Your task to perform on an android device: Open Chrome and go to the settings page Image 0: 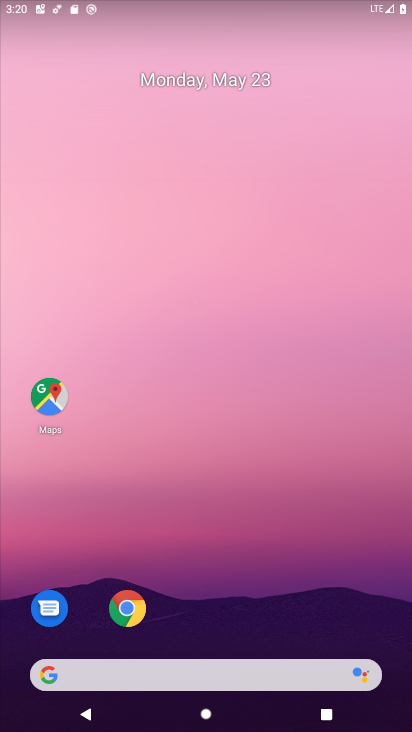
Step 0: drag from (254, 632) to (248, 257)
Your task to perform on an android device: Open Chrome and go to the settings page Image 1: 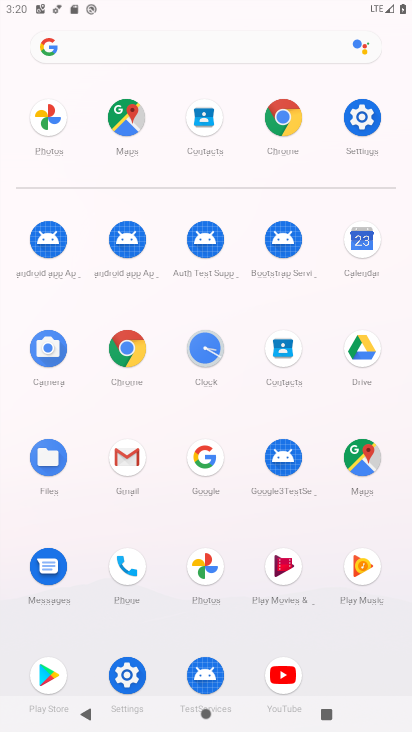
Step 1: click (293, 129)
Your task to perform on an android device: Open Chrome and go to the settings page Image 2: 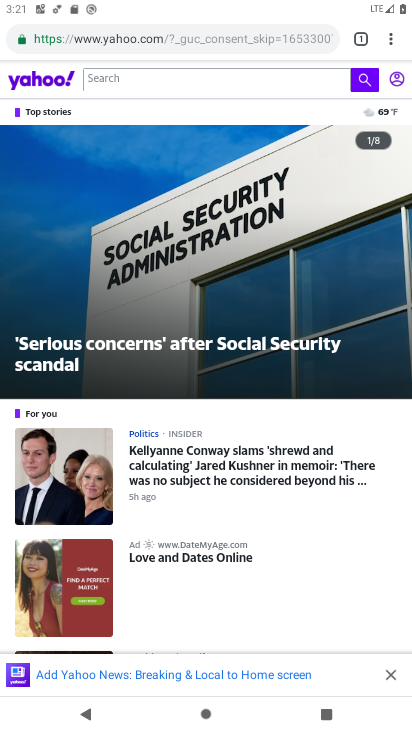
Step 2: click (396, 34)
Your task to perform on an android device: Open Chrome and go to the settings page Image 3: 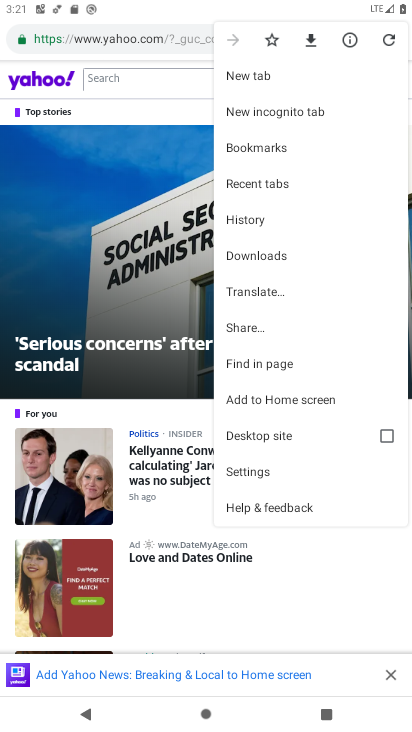
Step 3: click (280, 474)
Your task to perform on an android device: Open Chrome and go to the settings page Image 4: 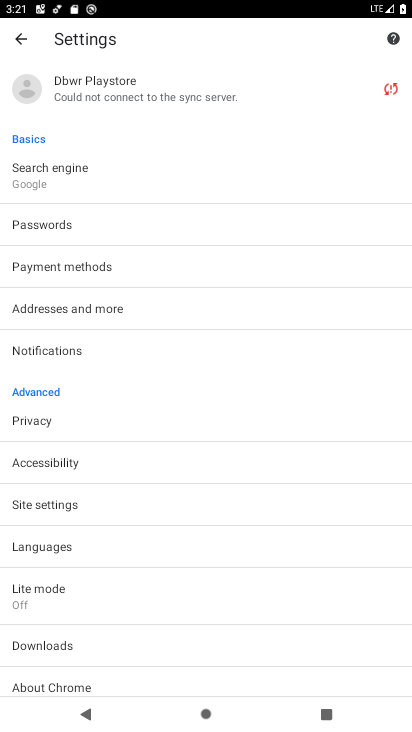
Step 4: task complete